Your task to perform on an android device: Open Chrome and go to settings Image 0: 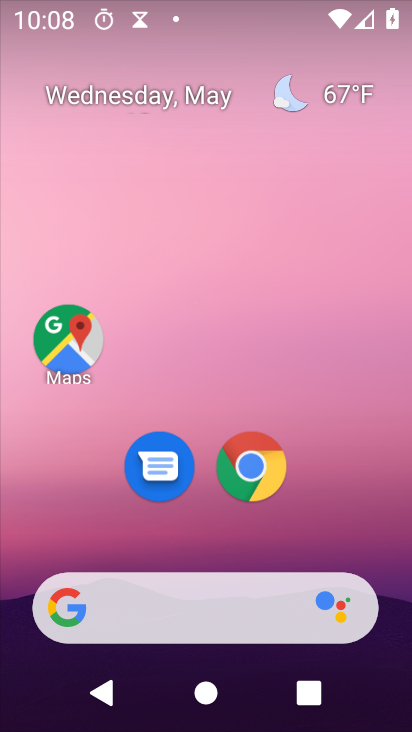
Step 0: click (246, 468)
Your task to perform on an android device: Open Chrome and go to settings Image 1: 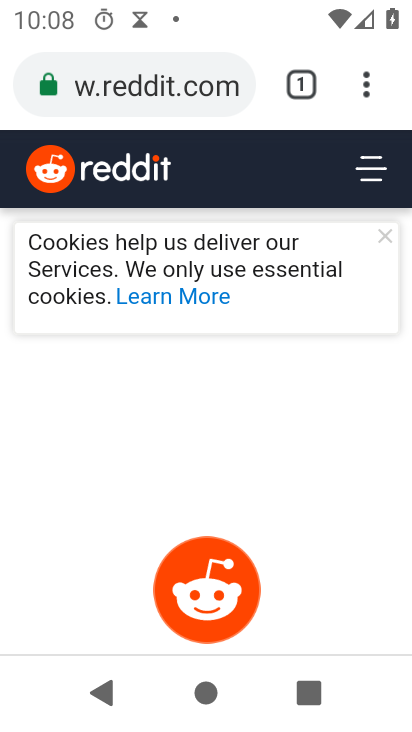
Step 1: click (365, 90)
Your task to perform on an android device: Open Chrome and go to settings Image 2: 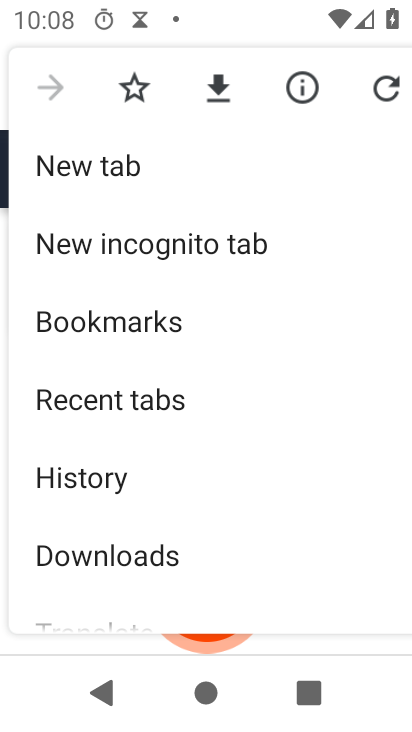
Step 2: drag from (138, 537) to (149, 235)
Your task to perform on an android device: Open Chrome and go to settings Image 3: 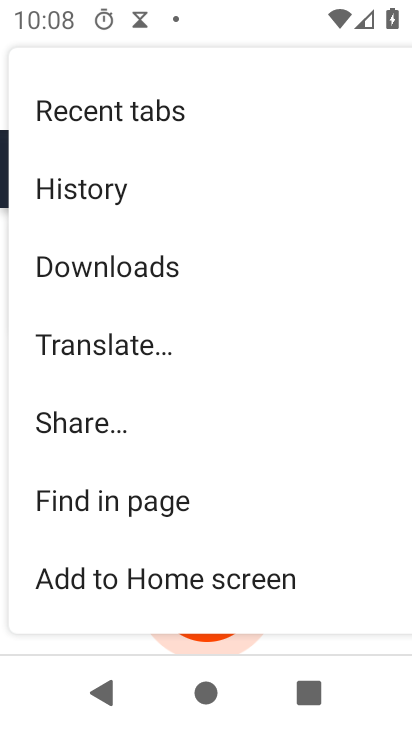
Step 3: drag from (106, 559) to (134, 297)
Your task to perform on an android device: Open Chrome and go to settings Image 4: 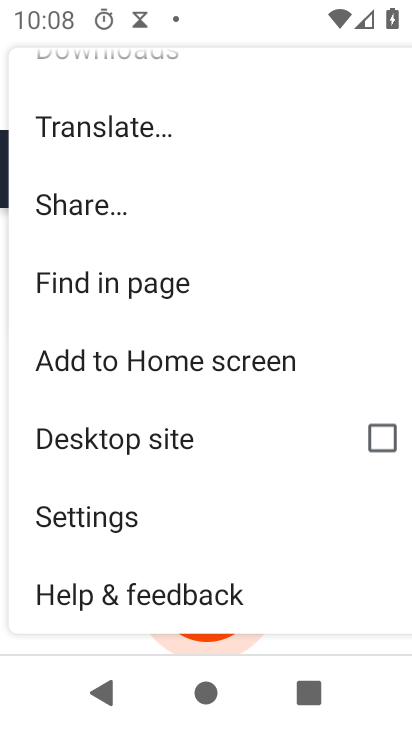
Step 4: click (113, 520)
Your task to perform on an android device: Open Chrome and go to settings Image 5: 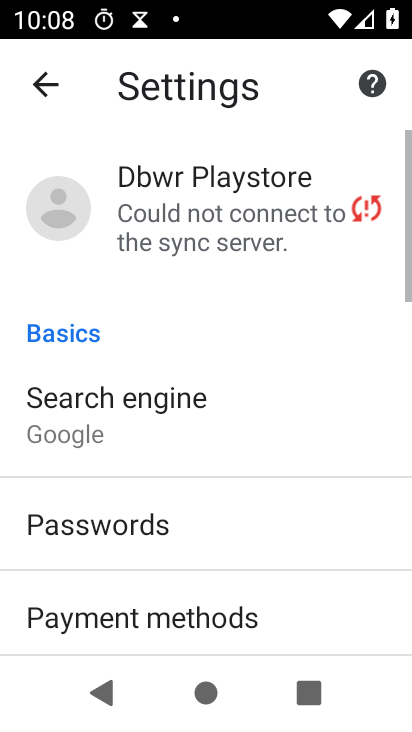
Step 5: task complete